Your task to perform on an android device: Check the news Image 0: 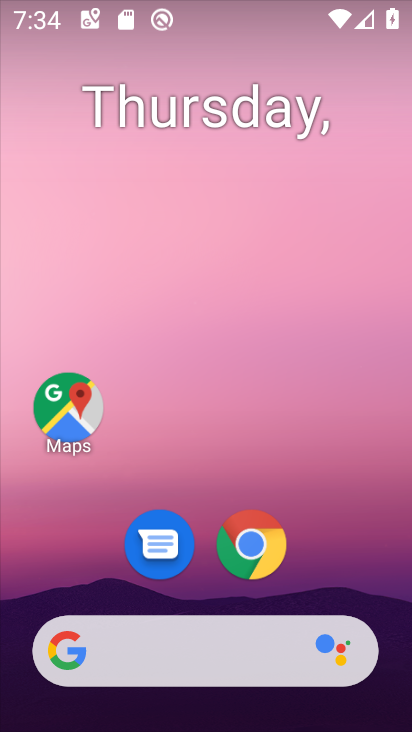
Step 0: drag from (220, 695) to (251, 166)
Your task to perform on an android device: Check the news Image 1: 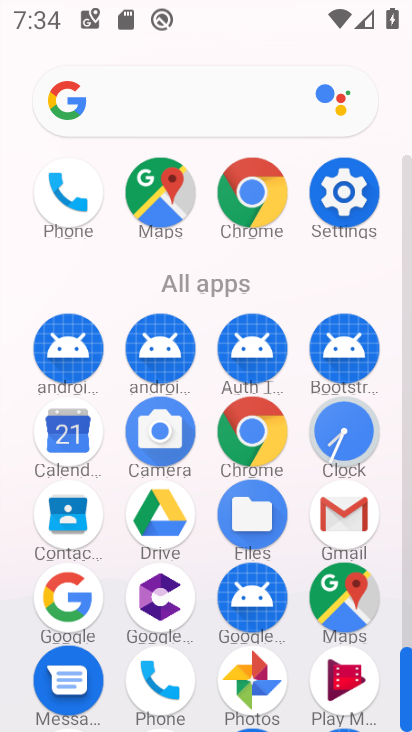
Step 1: click (119, 118)
Your task to perform on an android device: Check the news Image 2: 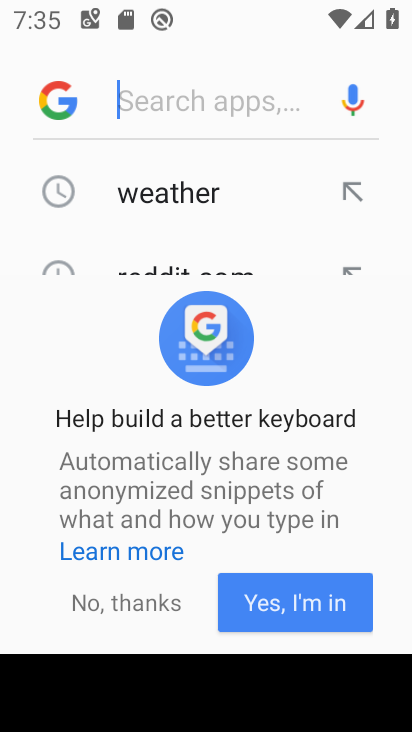
Step 2: click (119, 590)
Your task to perform on an android device: Check the news Image 3: 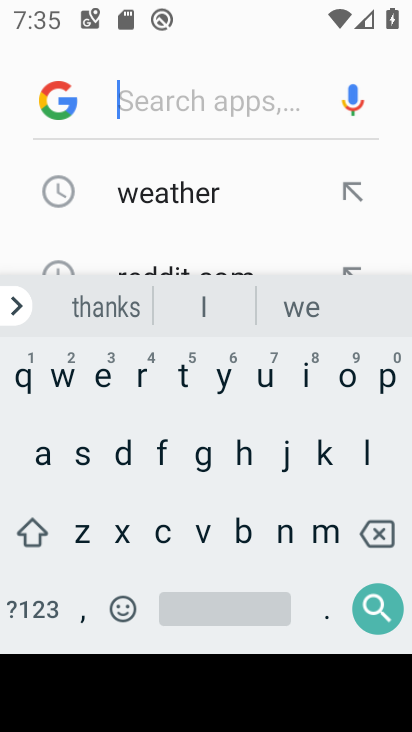
Step 3: drag from (196, 261) to (197, 146)
Your task to perform on an android device: Check the news Image 4: 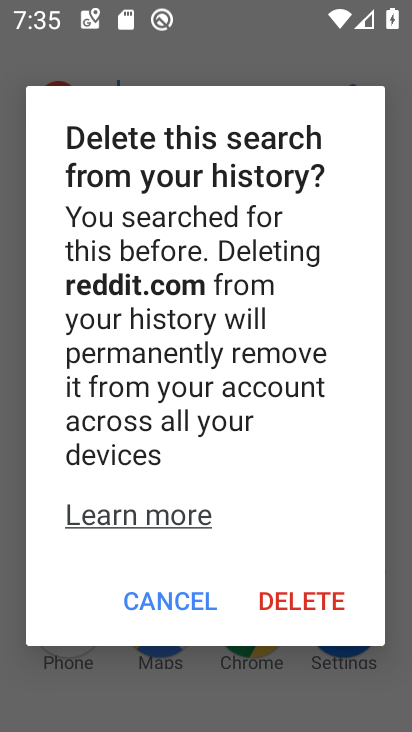
Step 4: click (166, 604)
Your task to perform on an android device: Check the news Image 5: 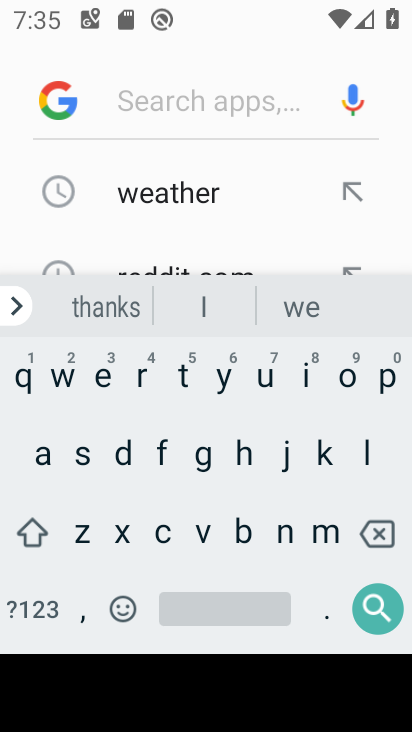
Step 5: click (285, 535)
Your task to perform on an android device: Check the news Image 6: 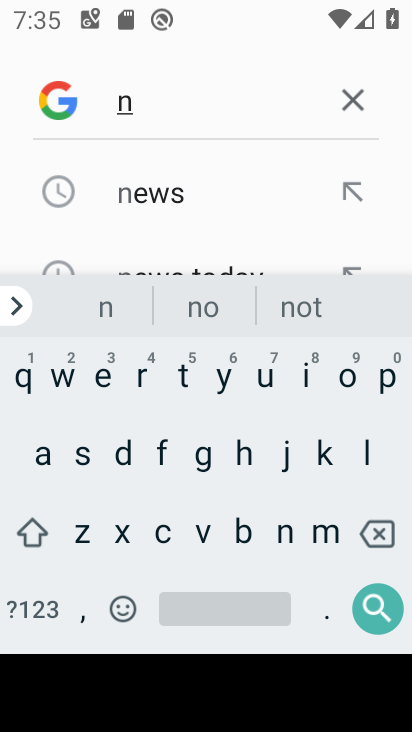
Step 6: click (146, 210)
Your task to perform on an android device: Check the news Image 7: 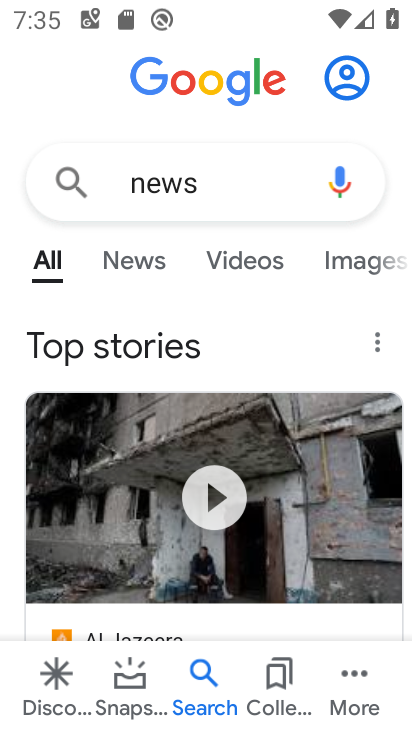
Step 7: task complete